Your task to perform on an android device: empty trash in the gmail app Image 0: 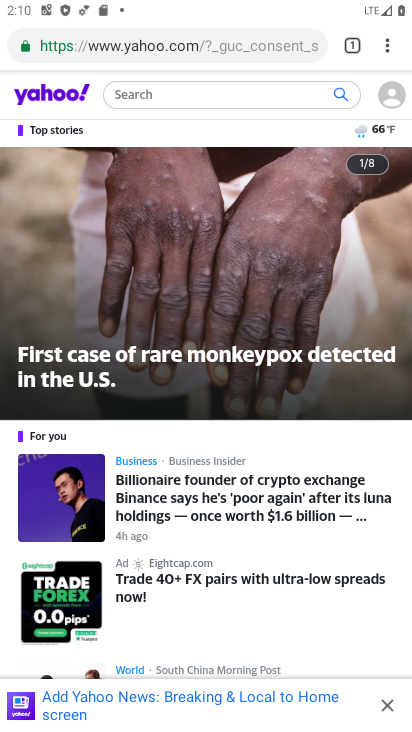
Step 0: press back button
Your task to perform on an android device: empty trash in the gmail app Image 1: 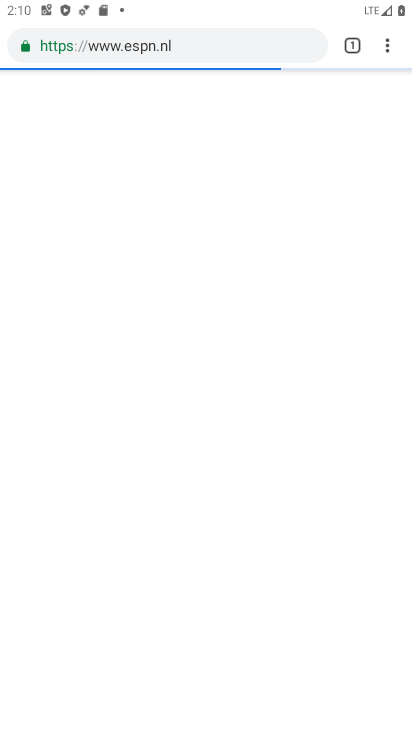
Step 1: press home button
Your task to perform on an android device: empty trash in the gmail app Image 2: 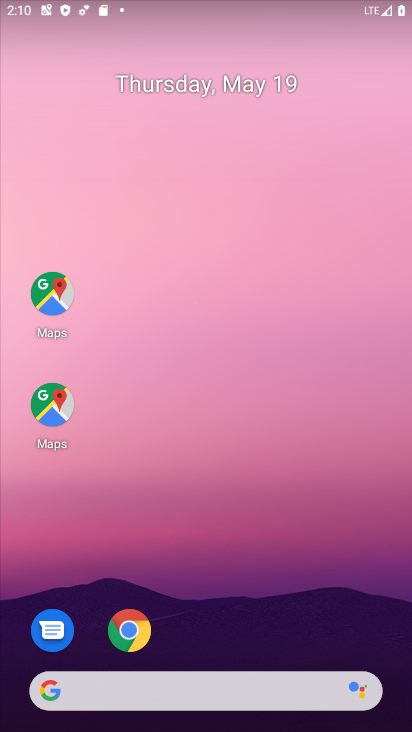
Step 2: drag from (244, 210) to (236, 25)
Your task to perform on an android device: empty trash in the gmail app Image 3: 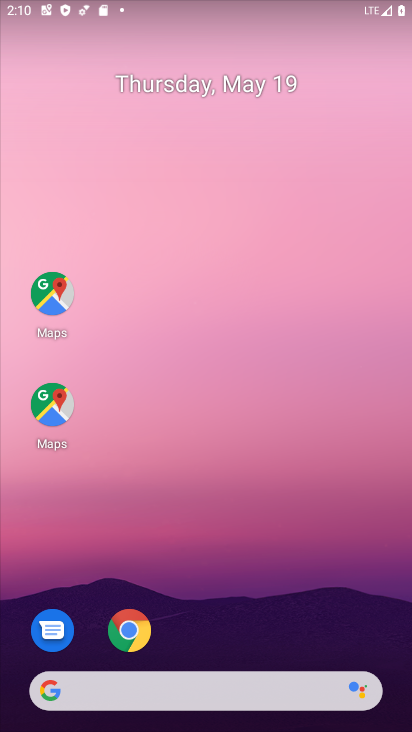
Step 3: drag from (244, 431) to (245, 41)
Your task to perform on an android device: empty trash in the gmail app Image 4: 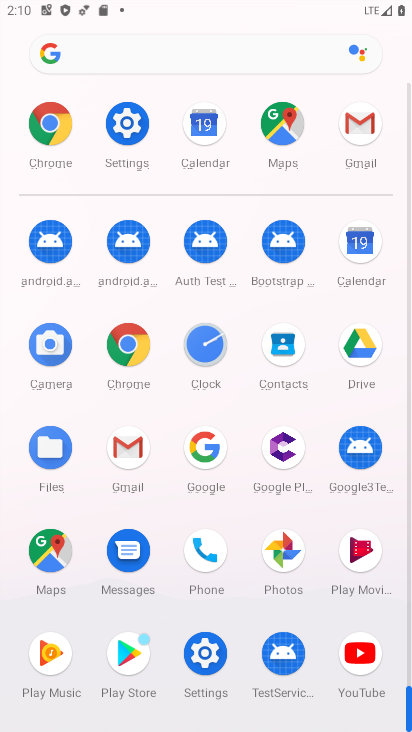
Step 4: drag from (6, 608) to (9, 249)
Your task to perform on an android device: empty trash in the gmail app Image 5: 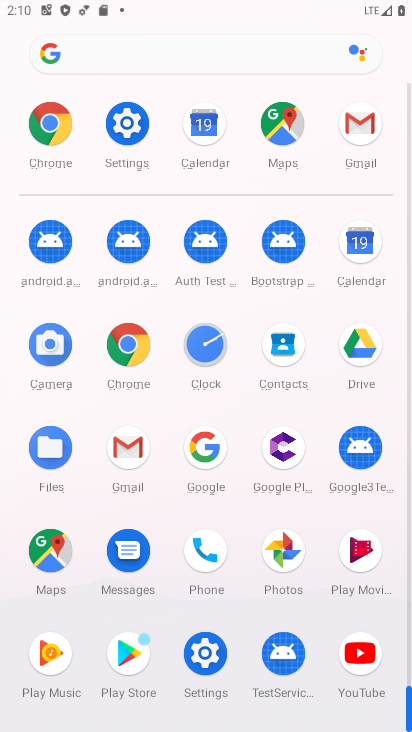
Step 5: click (127, 443)
Your task to perform on an android device: empty trash in the gmail app Image 6: 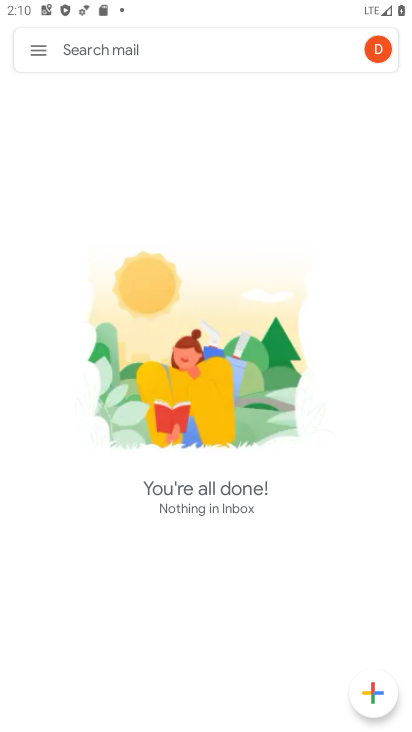
Step 6: click (47, 53)
Your task to perform on an android device: empty trash in the gmail app Image 7: 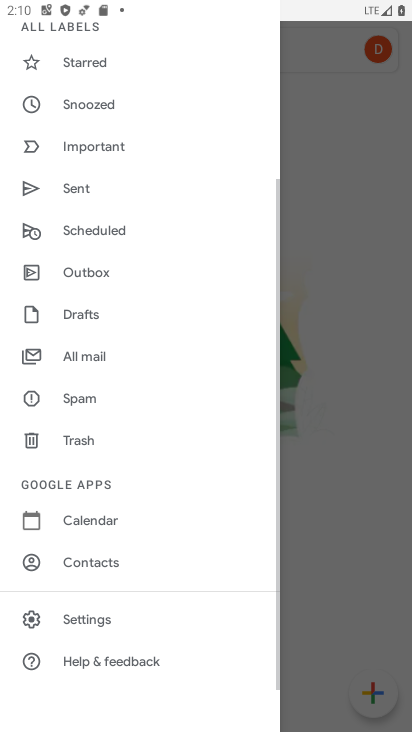
Step 7: click (92, 433)
Your task to perform on an android device: empty trash in the gmail app Image 8: 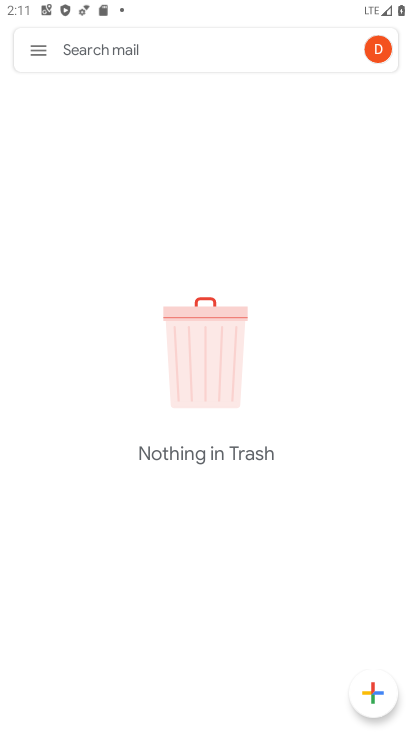
Step 8: task complete